Your task to perform on an android device: Open privacy settings Image 0: 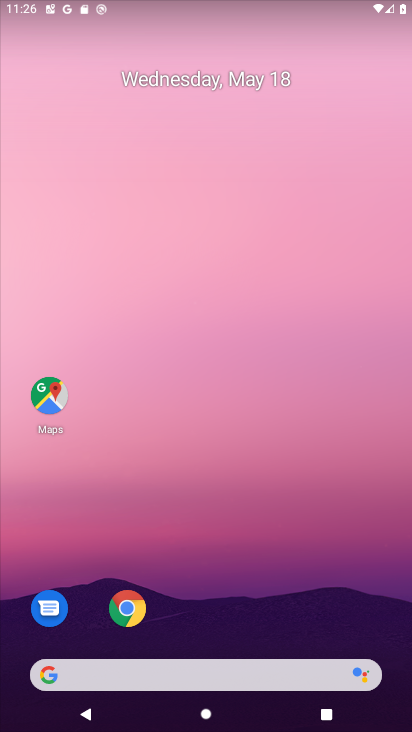
Step 0: drag from (201, 577) to (222, 228)
Your task to perform on an android device: Open privacy settings Image 1: 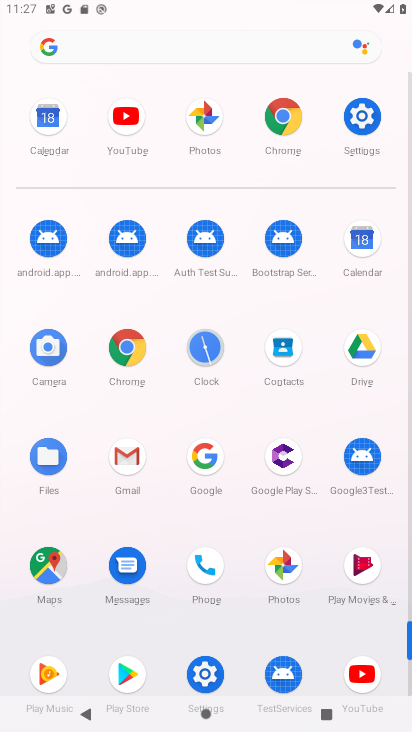
Step 1: click (371, 113)
Your task to perform on an android device: Open privacy settings Image 2: 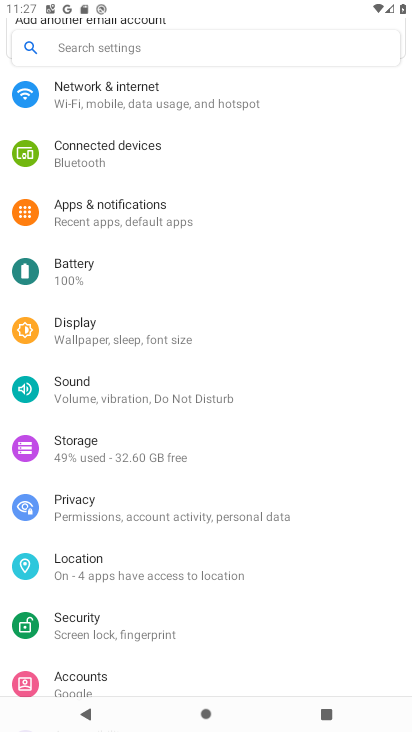
Step 2: click (108, 509)
Your task to perform on an android device: Open privacy settings Image 3: 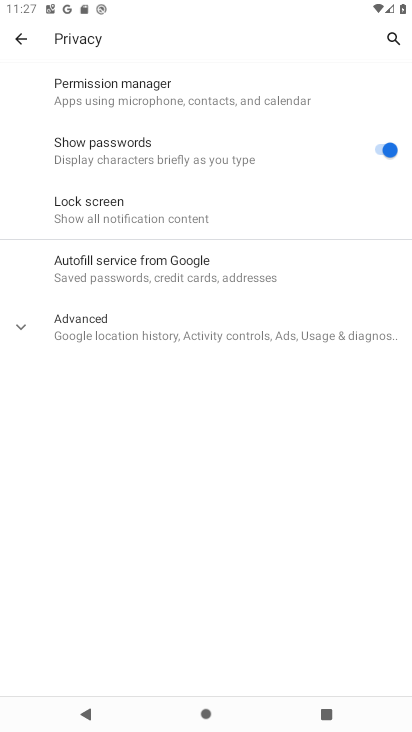
Step 3: click (74, 328)
Your task to perform on an android device: Open privacy settings Image 4: 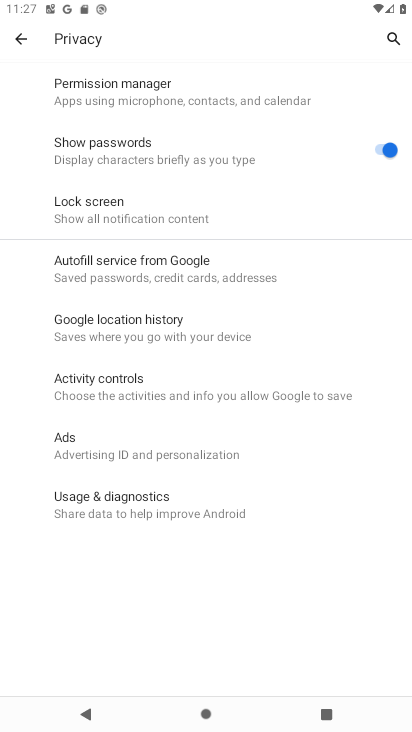
Step 4: task complete